Your task to perform on an android device: See recent photos Image 0: 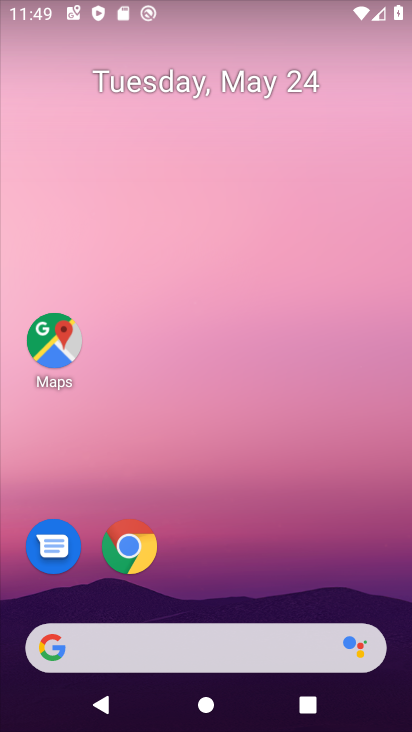
Step 0: drag from (234, 562) to (170, 152)
Your task to perform on an android device: See recent photos Image 1: 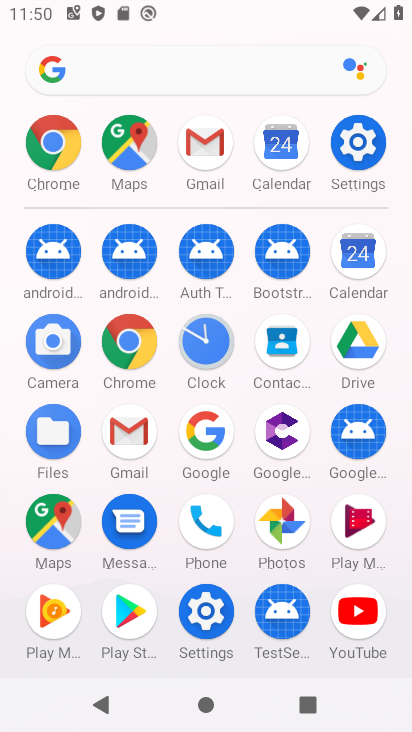
Step 1: click (280, 508)
Your task to perform on an android device: See recent photos Image 2: 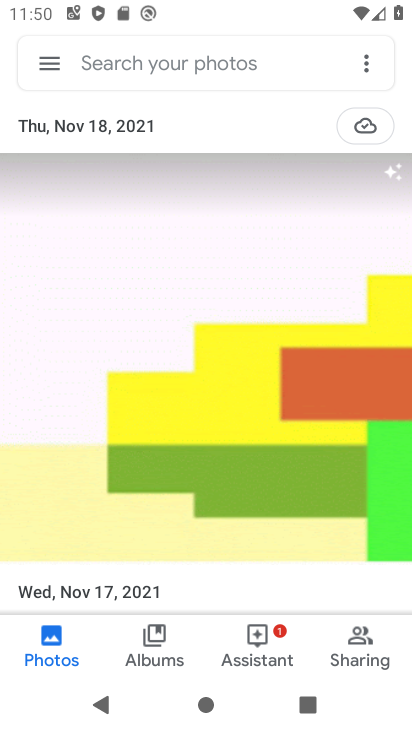
Step 2: click (54, 61)
Your task to perform on an android device: See recent photos Image 3: 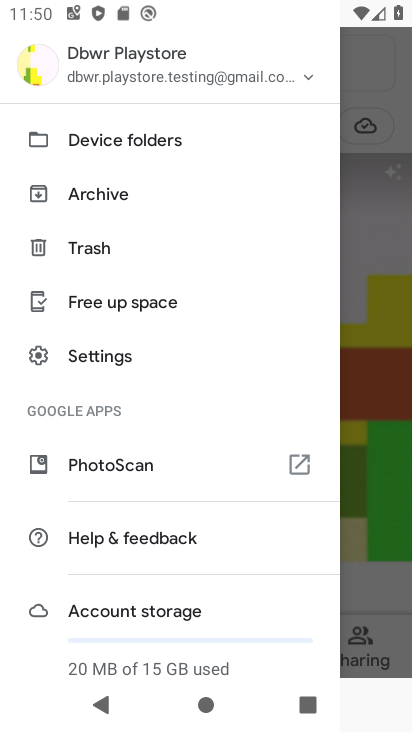
Step 3: click (390, 292)
Your task to perform on an android device: See recent photos Image 4: 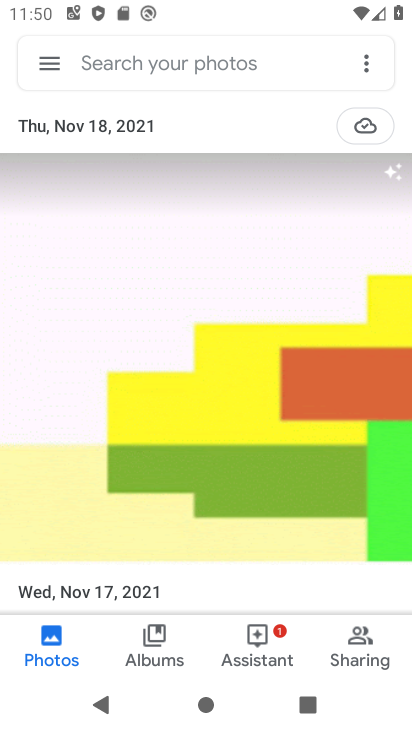
Step 4: task complete